Your task to perform on an android device: all mails in gmail Image 0: 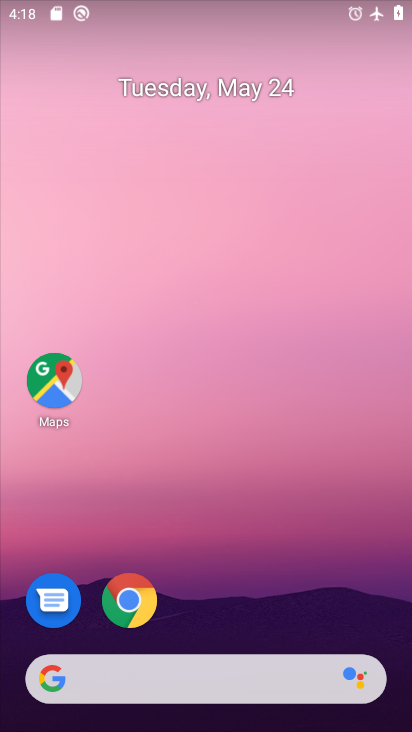
Step 0: drag from (176, 668) to (267, 39)
Your task to perform on an android device: all mails in gmail Image 1: 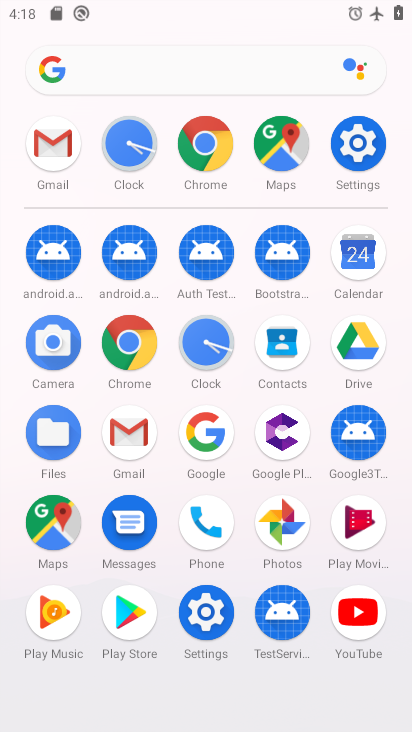
Step 1: click (143, 417)
Your task to perform on an android device: all mails in gmail Image 2: 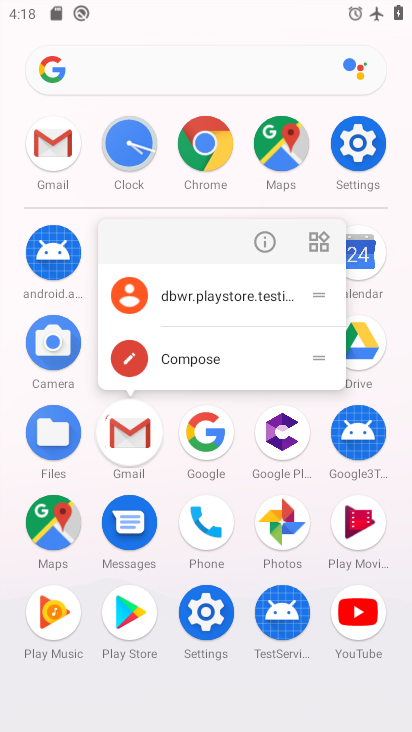
Step 2: click (140, 428)
Your task to perform on an android device: all mails in gmail Image 3: 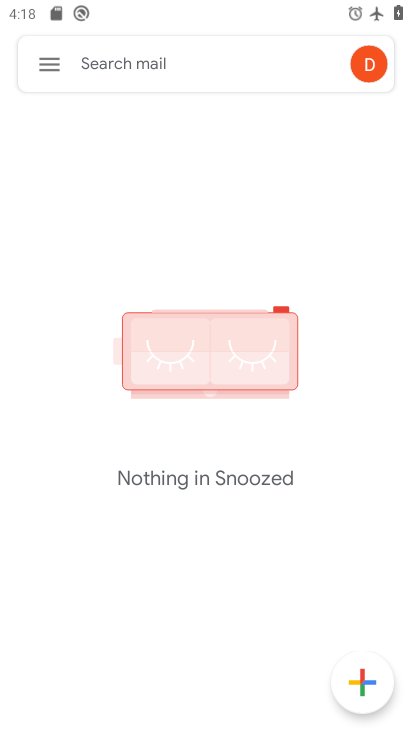
Step 3: click (34, 58)
Your task to perform on an android device: all mails in gmail Image 4: 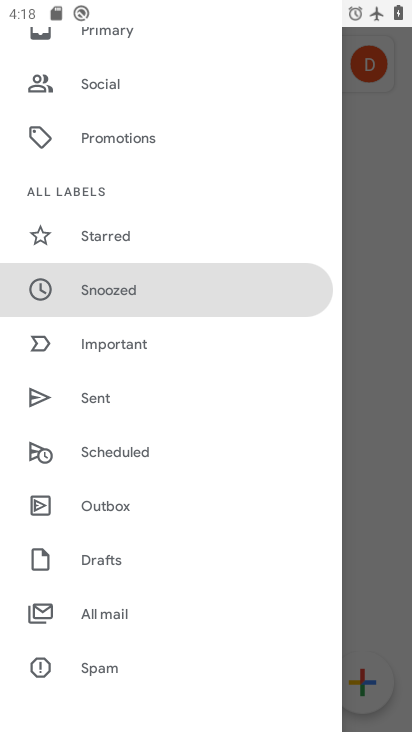
Step 4: click (123, 613)
Your task to perform on an android device: all mails in gmail Image 5: 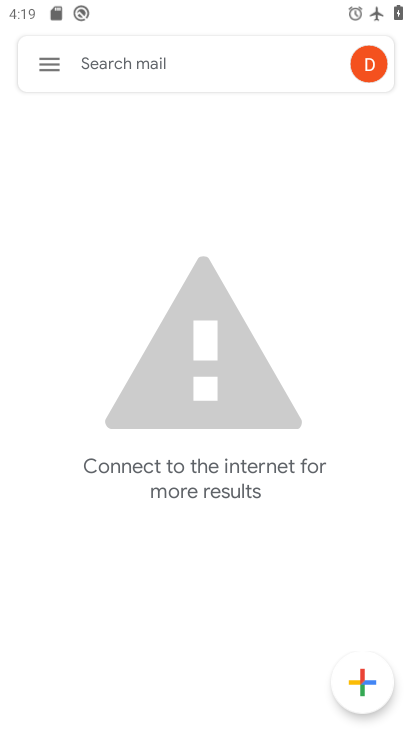
Step 5: press home button
Your task to perform on an android device: all mails in gmail Image 6: 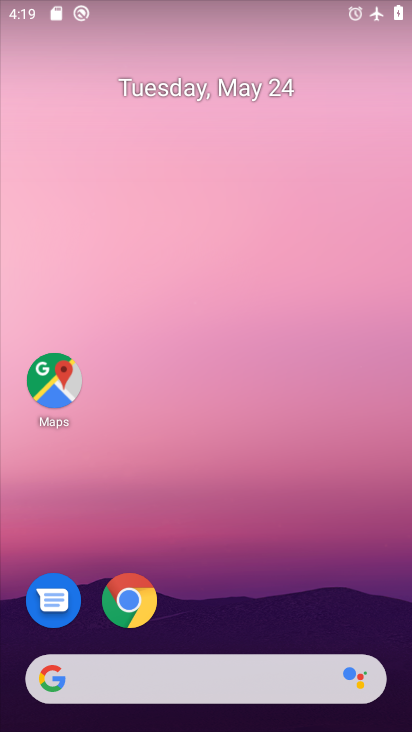
Step 6: drag from (310, 711) to (250, 43)
Your task to perform on an android device: all mails in gmail Image 7: 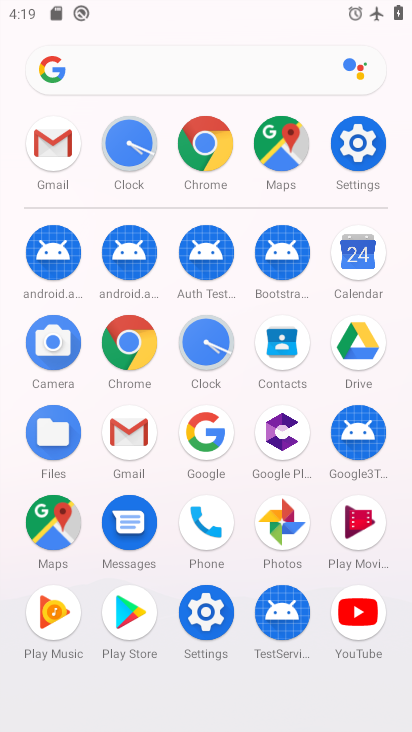
Step 7: click (121, 424)
Your task to perform on an android device: all mails in gmail Image 8: 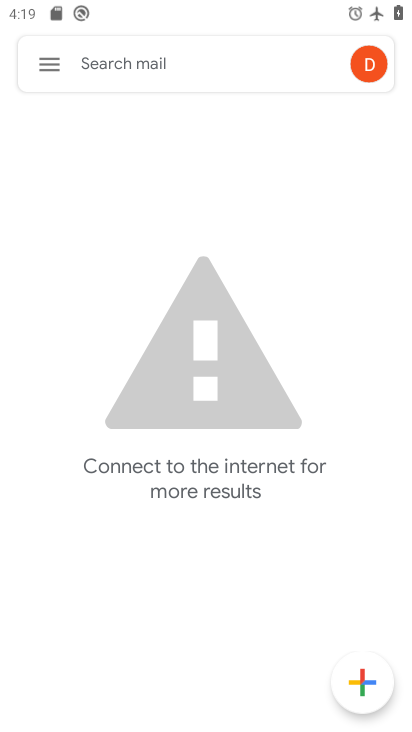
Step 8: click (39, 52)
Your task to perform on an android device: all mails in gmail Image 9: 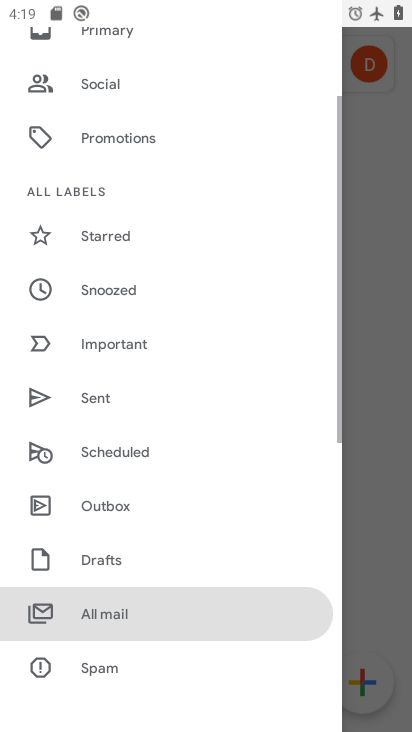
Step 9: click (106, 617)
Your task to perform on an android device: all mails in gmail Image 10: 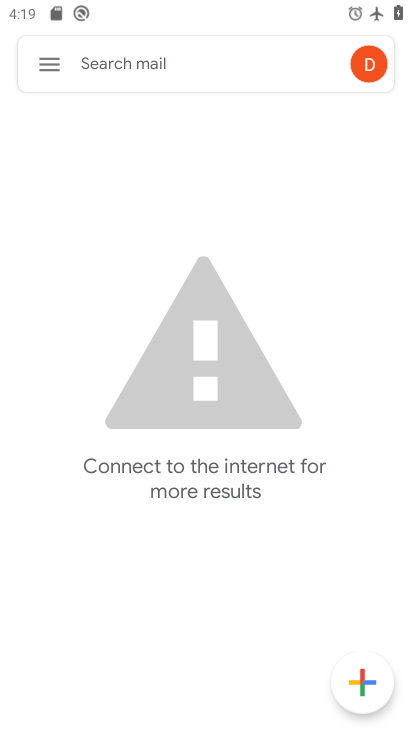
Step 10: task complete